Your task to perform on an android device: change the clock display to show seconds Image 0: 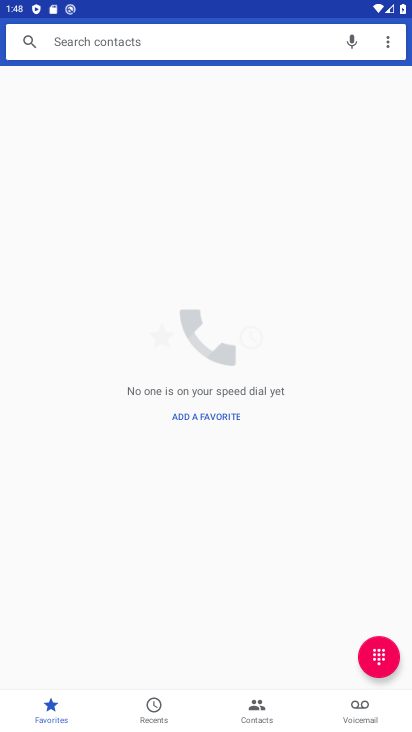
Step 0: press home button
Your task to perform on an android device: change the clock display to show seconds Image 1: 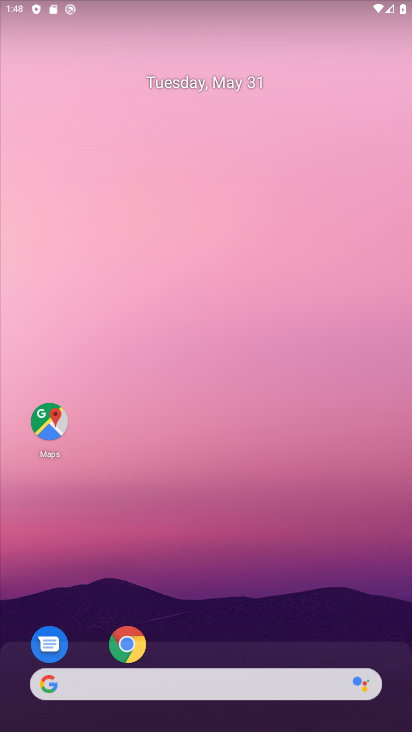
Step 1: drag from (286, 613) to (201, 44)
Your task to perform on an android device: change the clock display to show seconds Image 2: 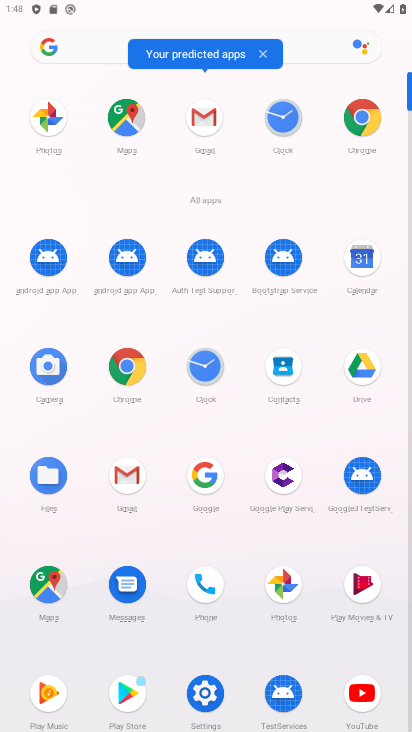
Step 2: click (204, 372)
Your task to perform on an android device: change the clock display to show seconds Image 3: 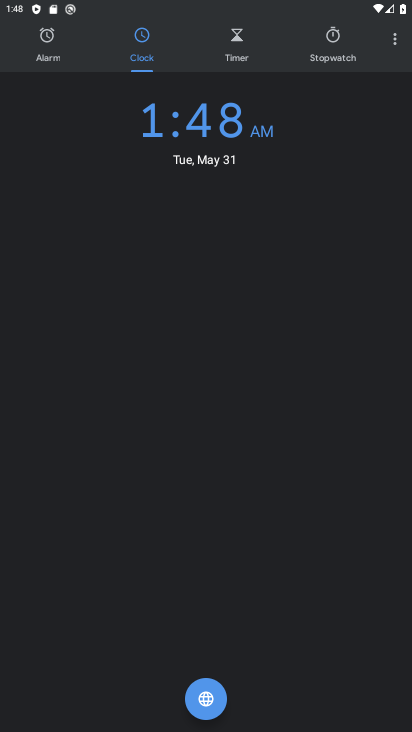
Step 3: click (394, 48)
Your task to perform on an android device: change the clock display to show seconds Image 4: 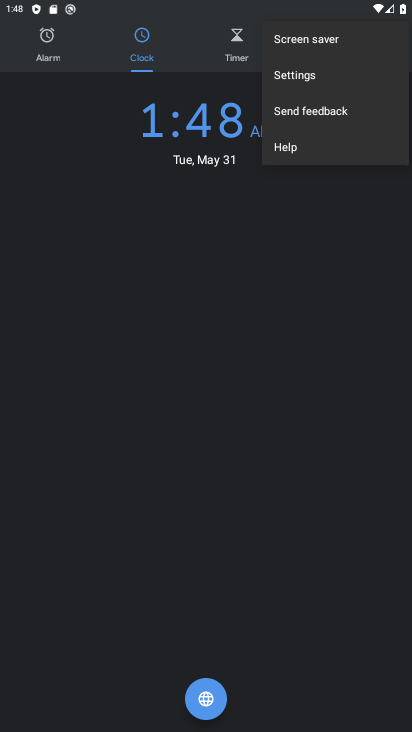
Step 4: click (299, 74)
Your task to perform on an android device: change the clock display to show seconds Image 5: 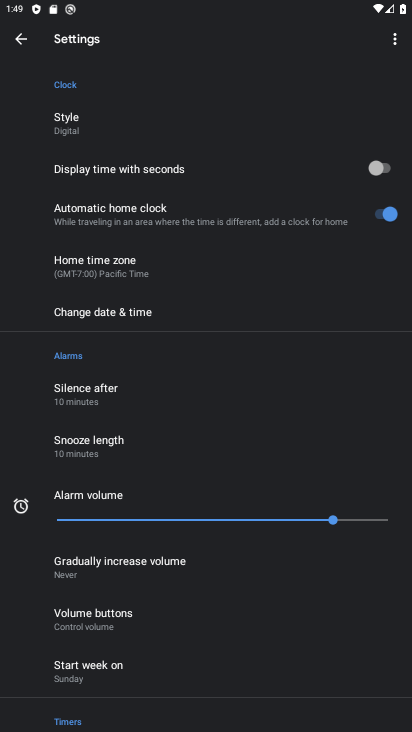
Step 5: click (115, 309)
Your task to perform on an android device: change the clock display to show seconds Image 6: 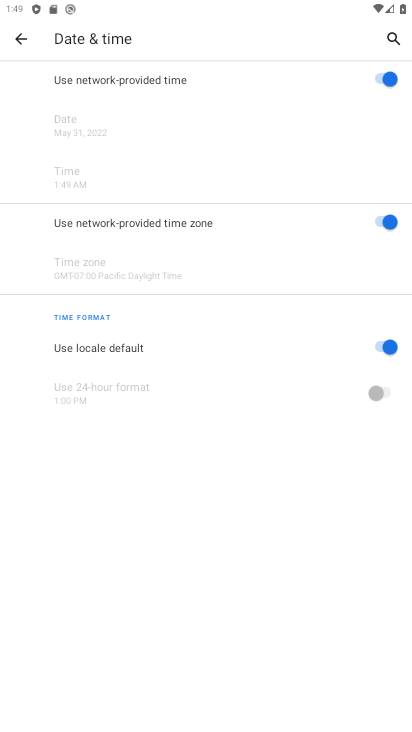
Step 6: click (29, 35)
Your task to perform on an android device: change the clock display to show seconds Image 7: 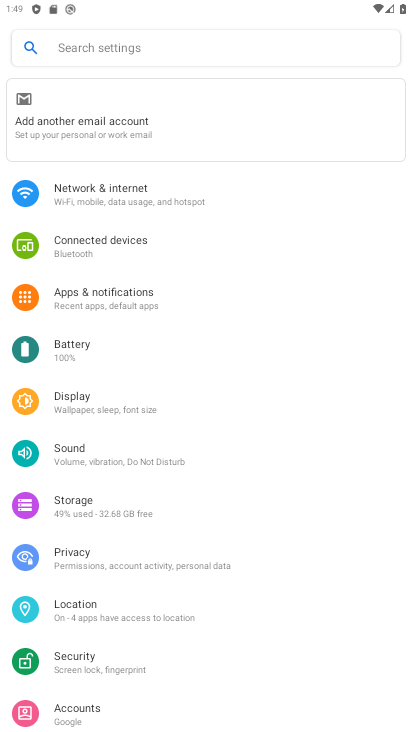
Step 7: press back button
Your task to perform on an android device: change the clock display to show seconds Image 8: 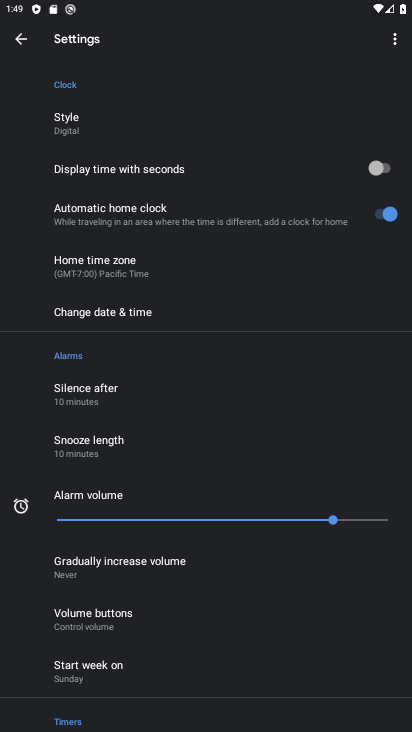
Step 8: click (380, 166)
Your task to perform on an android device: change the clock display to show seconds Image 9: 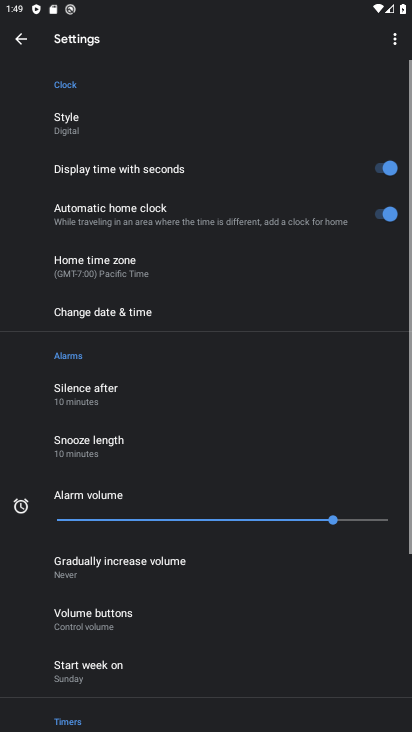
Step 9: task complete